Your task to perform on an android device: Open settings on Google Maps Image 0: 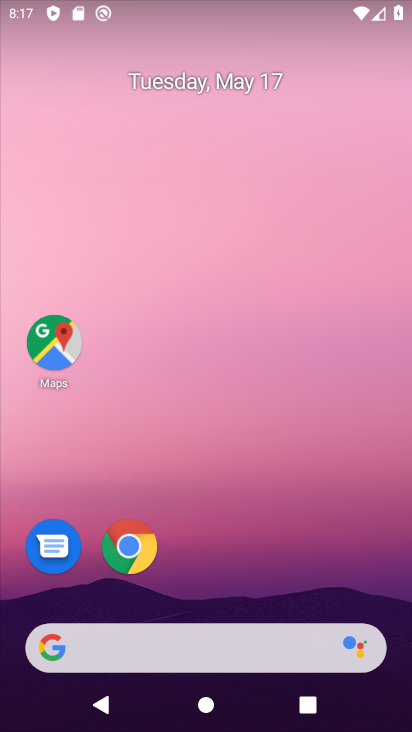
Step 0: click (53, 364)
Your task to perform on an android device: Open settings on Google Maps Image 1: 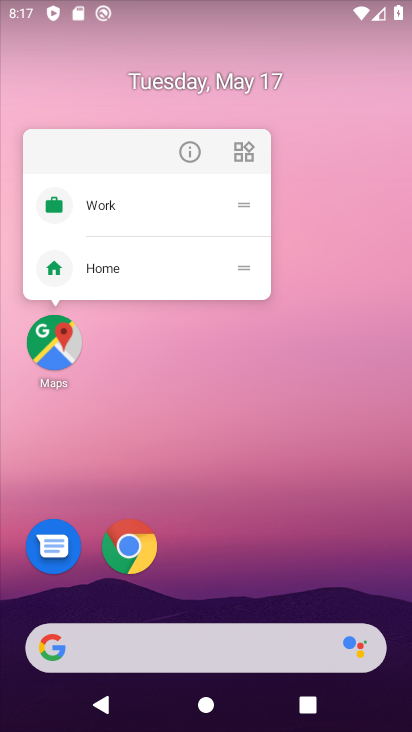
Step 1: click (56, 349)
Your task to perform on an android device: Open settings on Google Maps Image 2: 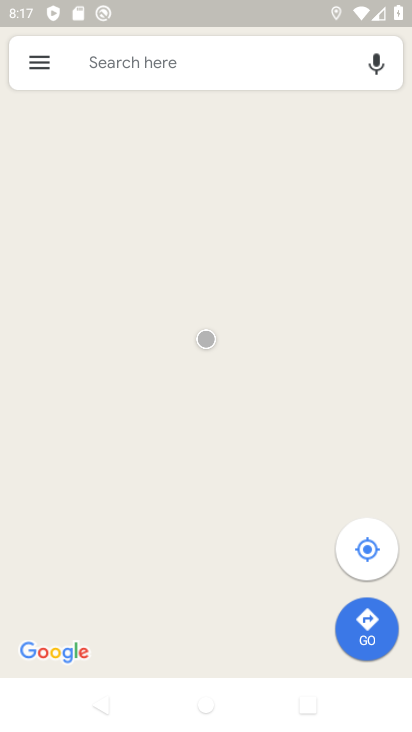
Step 2: click (47, 65)
Your task to perform on an android device: Open settings on Google Maps Image 3: 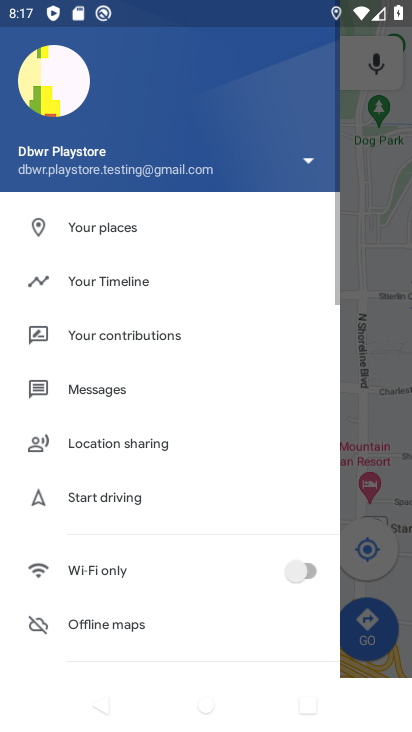
Step 3: drag from (107, 536) to (233, 156)
Your task to perform on an android device: Open settings on Google Maps Image 4: 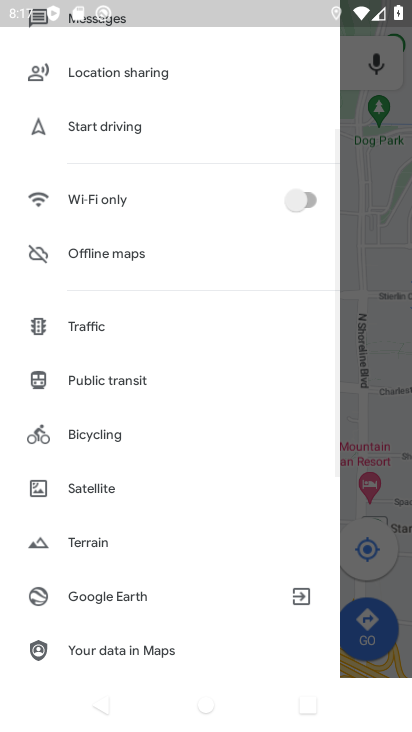
Step 4: drag from (123, 583) to (280, 145)
Your task to perform on an android device: Open settings on Google Maps Image 5: 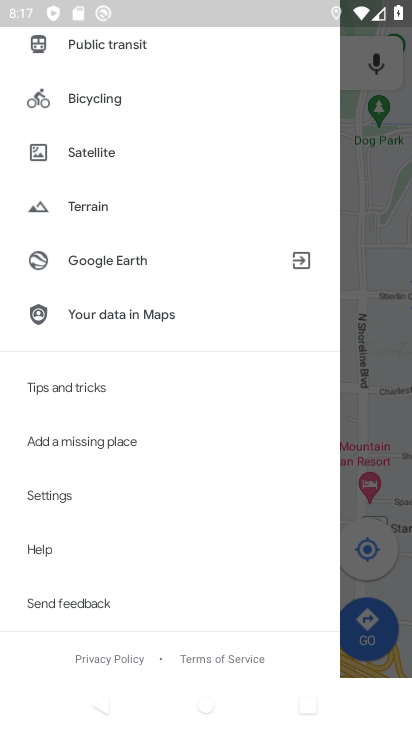
Step 5: click (123, 505)
Your task to perform on an android device: Open settings on Google Maps Image 6: 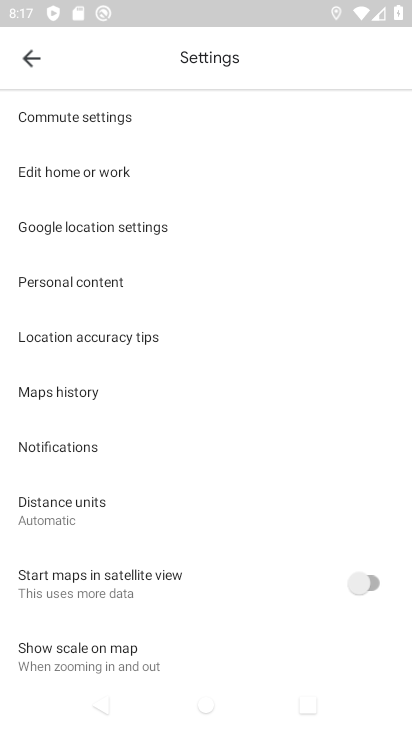
Step 6: task complete